Your task to perform on an android device: turn off picture-in-picture Image 0: 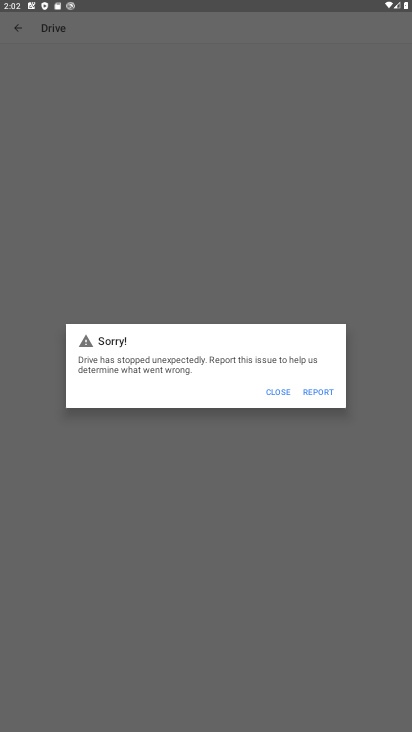
Step 0: press home button
Your task to perform on an android device: turn off picture-in-picture Image 1: 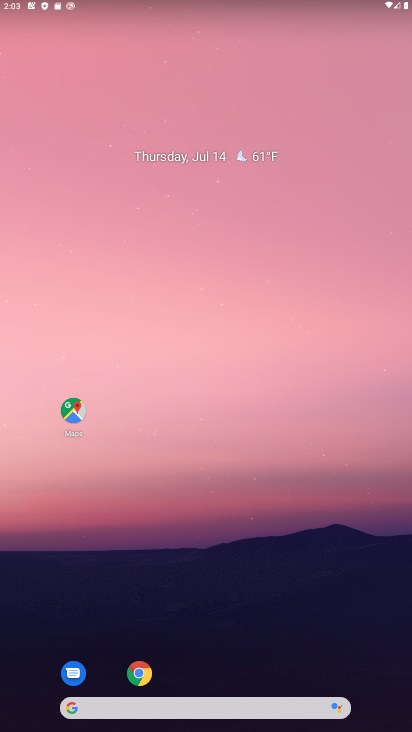
Step 1: click (144, 681)
Your task to perform on an android device: turn off picture-in-picture Image 2: 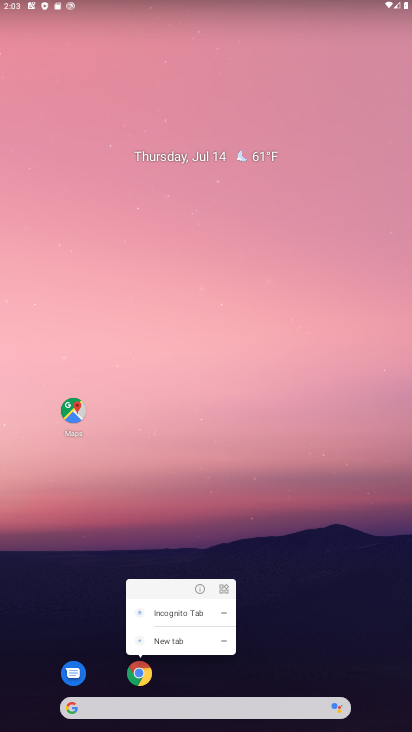
Step 2: click (200, 596)
Your task to perform on an android device: turn off picture-in-picture Image 3: 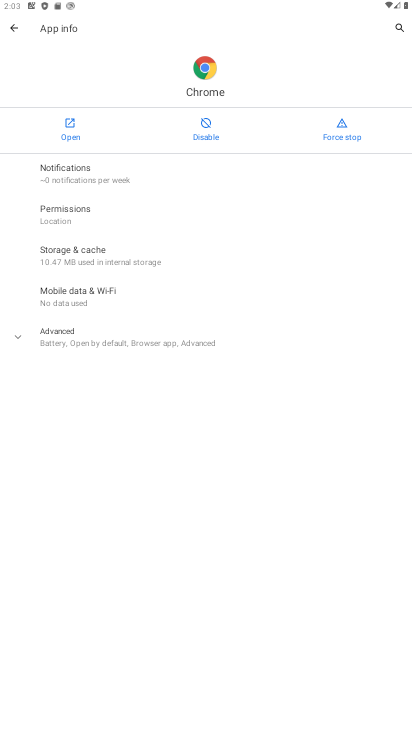
Step 3: click (97, 342)
Your task to perform on an android device: turn off picture-in-picture Image 4: 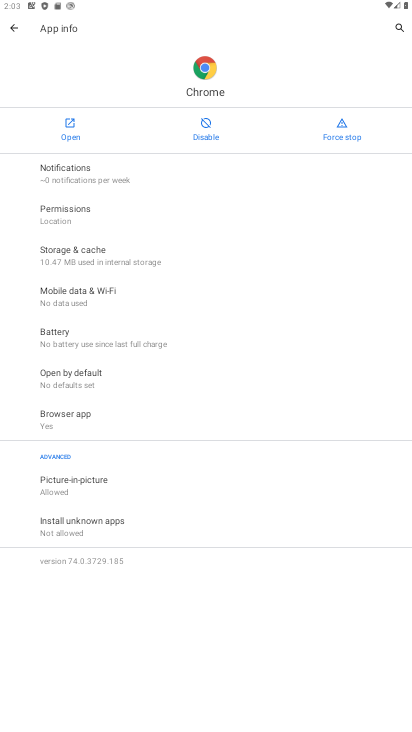
Step 4: click (93, 471)
Your task to perform on an android device: turn off picture-in-picture Image 5: 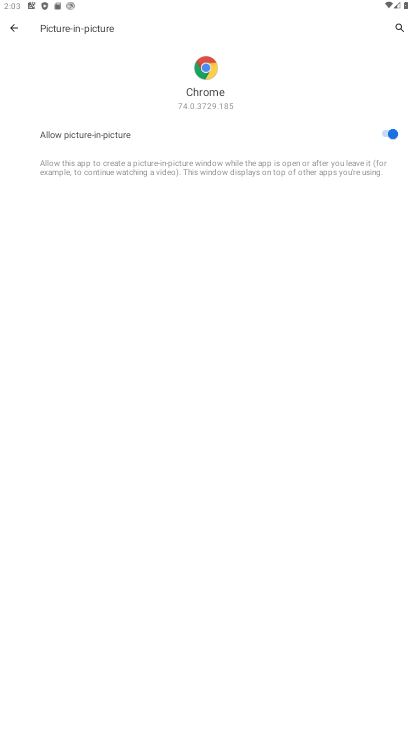
Step 5: click (386, 137)
Your task to perform on an android device: turn off picture-in-picture Image 6: 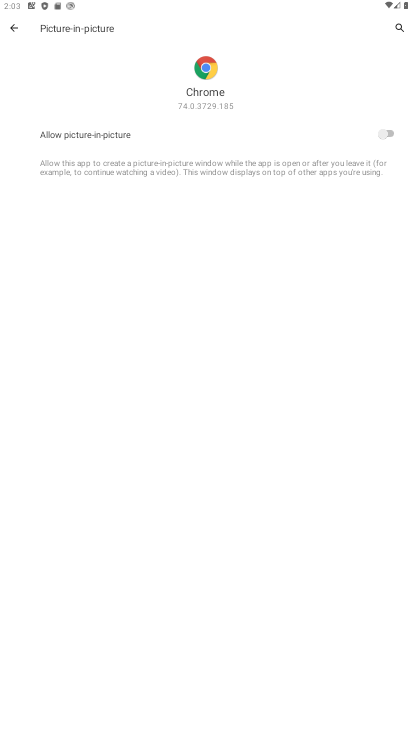
Step 6: task complete